Your task to perform on an android device: Open Chrome and go to settings Image 0: 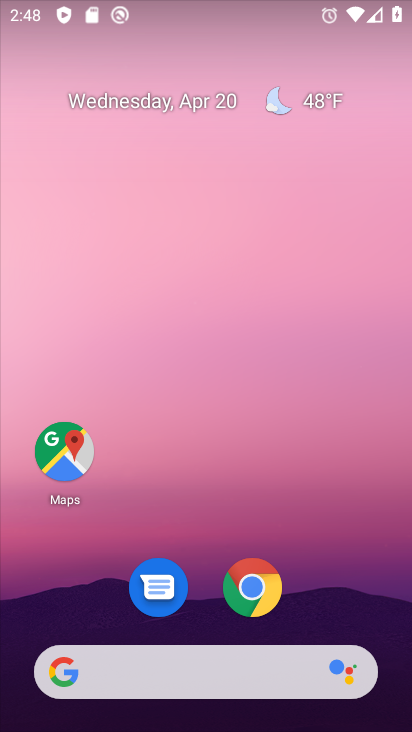
Step 0: click (244, 593)
Your task to perform on an android device: Open Chrome and go to settings Image 1: 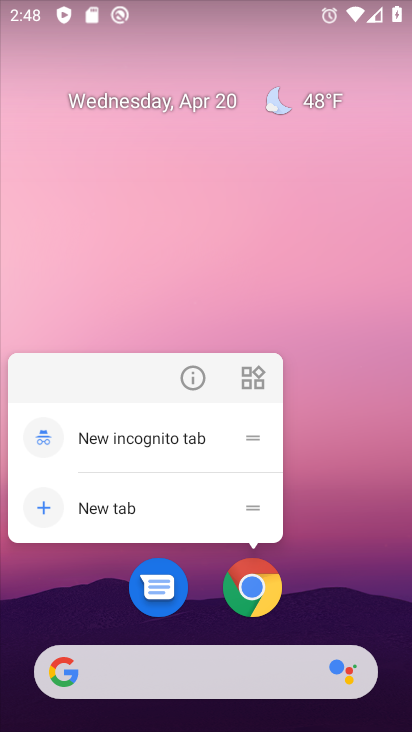
Step 1: click (253, 599)
Your task to perform on an android device: Open Chrome and go to settings Image 2: 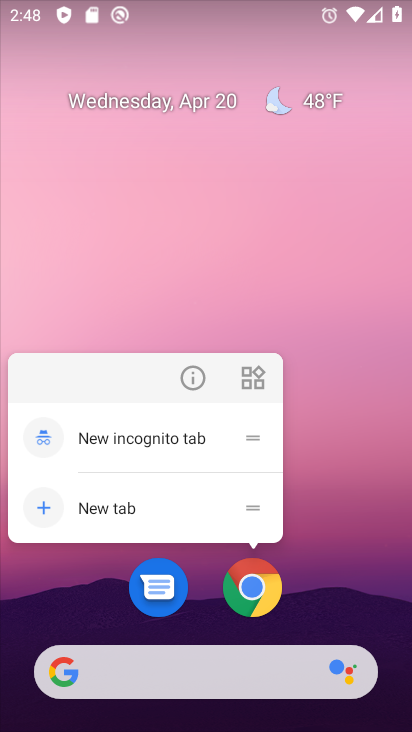
Step 2: click (251, 597)
Your task to perform on an android device: Open Chrome and go to settings Image 3: 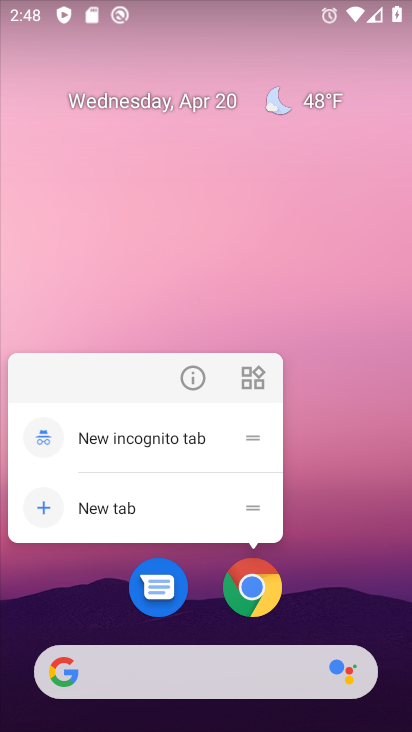
Step 3: click (254, 599)
Your task to perform on an android device: Open Chrome and go to settings Image 4: 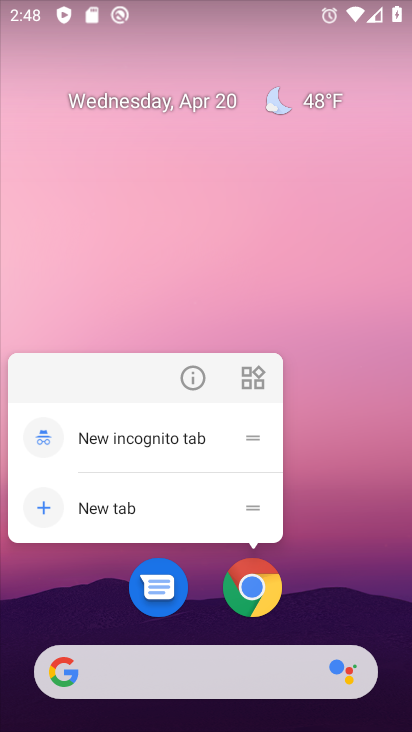
Step 4: click (265, 595)
Your task to perform on an android device: Open Chrome and go to settings Image 5: 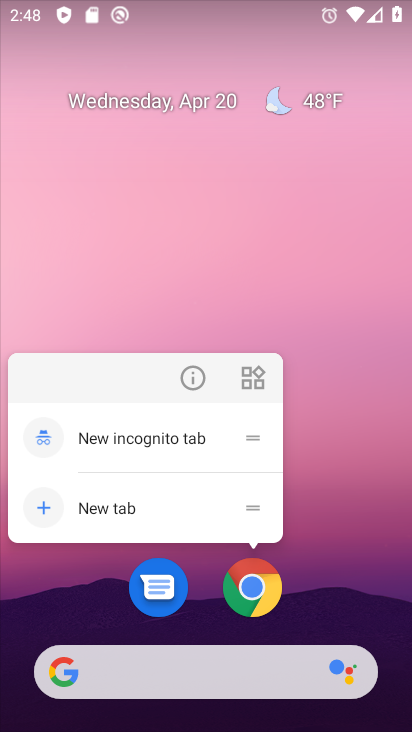
Step 5: click (269, 597)
Your task to perform on an android device: Open Chrome and go to settings Image 6: 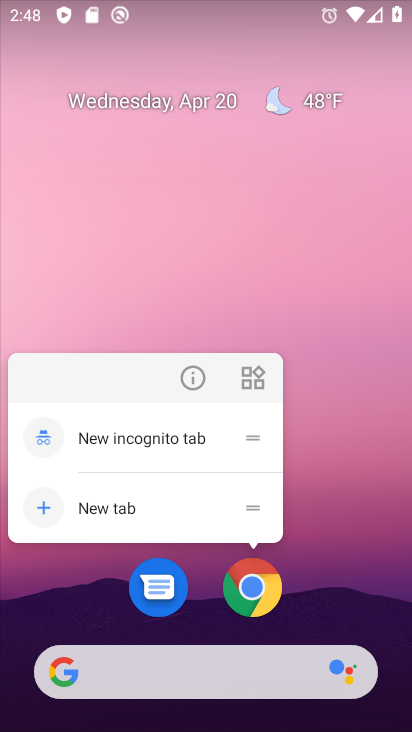
Step 6: click (261, 595)
Your task to perform on an android device: Open Chrome and go to settings Image 7: 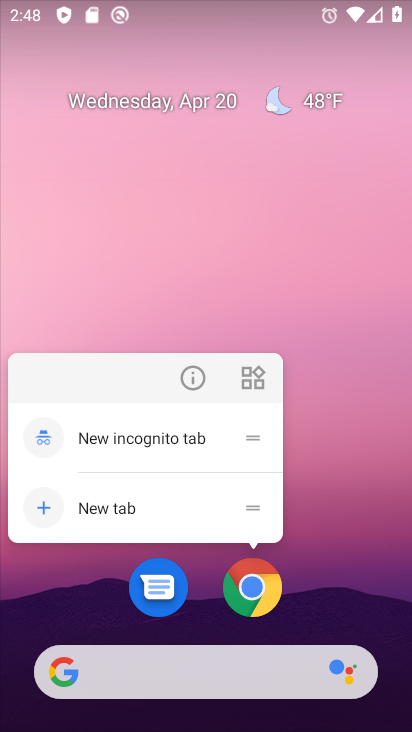
Step 7: click (259, 595)
Your task to perform on an android device: Open Chrome and go to settings Image 8: 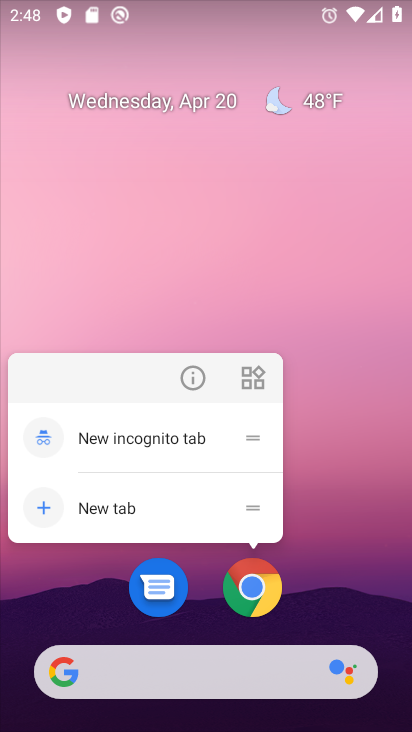
Step 8: click (263, 595)
Your task to perform on an android device: Open Chrome and go to settings Image 9: 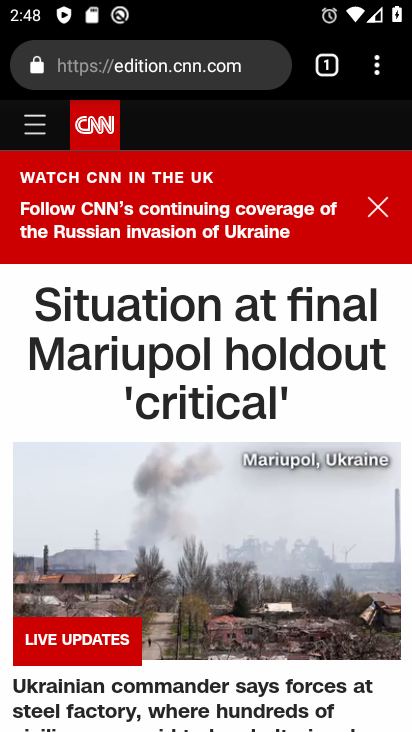
Step 9: task complete